Your task to perform on an android device: see sites visited before in the chrome app Image 0: 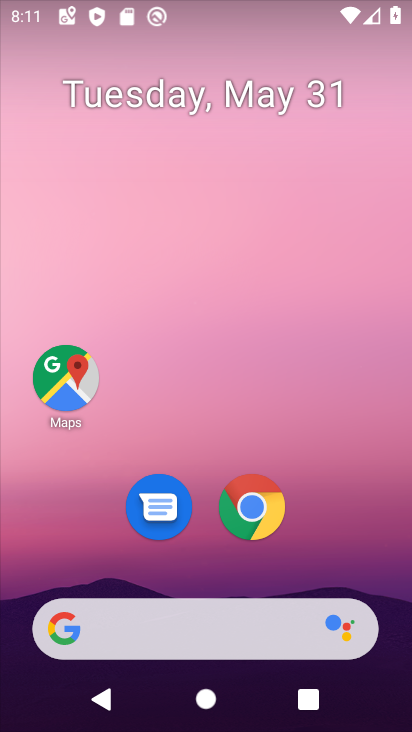
Step 0: click (256, 503)
Your task to perform on an android device: see sites visited before in the chrome app Image 1: 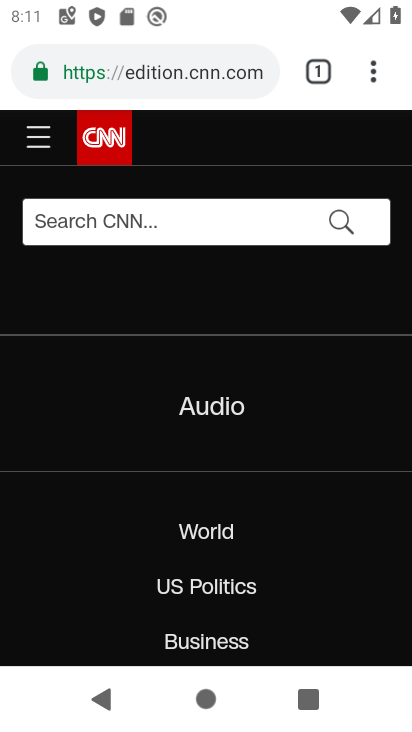
Step 1: task complete